Your task to perform on an android device: Go to Reddit.com Image 0: 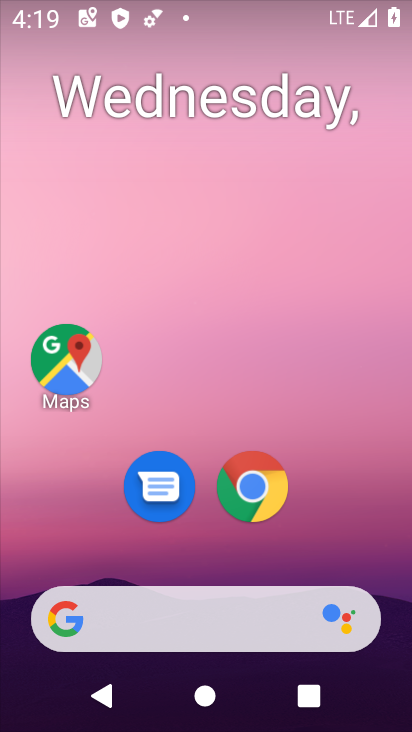
Step 0: drag from (188, 582) to (260, 173)
Your task to perform on an android device: Go to Reddit.com Image 1: 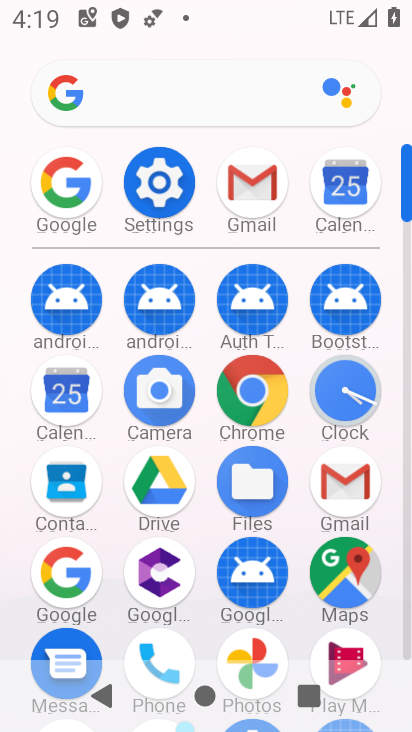
Step 1: click (63, 568)
Your task to perform on an android device: Go to Reddit.com Image 2: 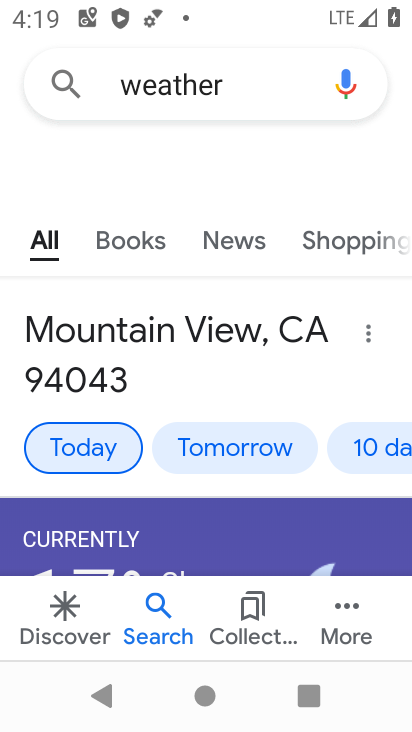
Step 2: click (227, 91)
Your task to perform on an android device: Go to Reddit.com Image 3: 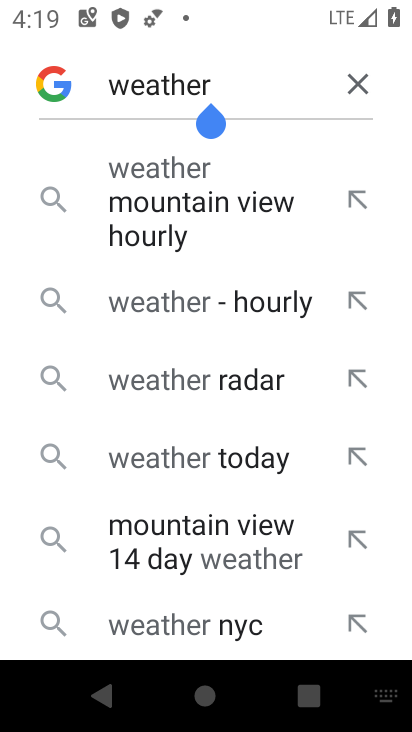
Step 3: click (353, 90)
Your task to perform on an android device: Go to Reddit.com Image 4: 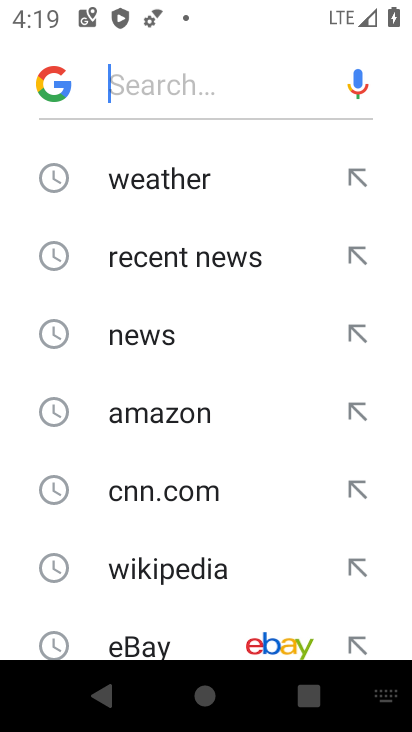
Step 4: drag from (168, 599) to (189, 256)
Your task to perform on an android device: Go to Reddit.com Image 5: 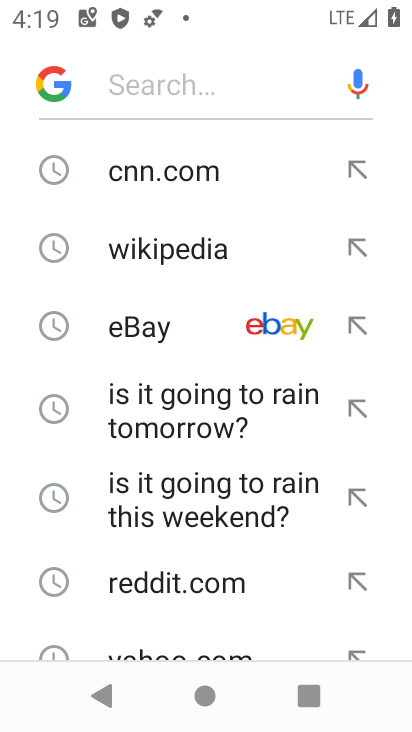
Step 5: click (125, 584)
Your task to perform on an android device: Go to Reddit.com Image 6: 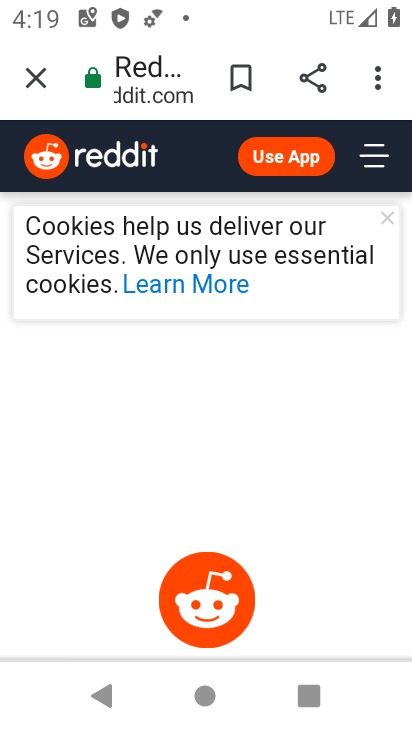
Step 6: task complete